Your task to perform on an android device: Open the calendar and show me this week's events? Image 0: 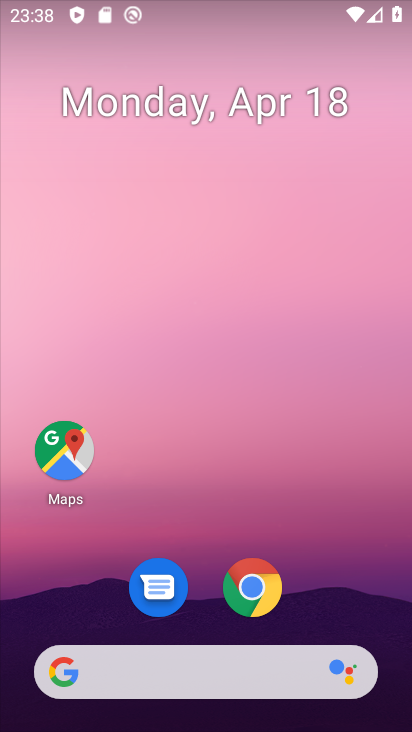
Step 0: drag from (366, 457) to (318, 126)
Your task to perform on an android device: Open the calendar and show me this week's events? Image 1: 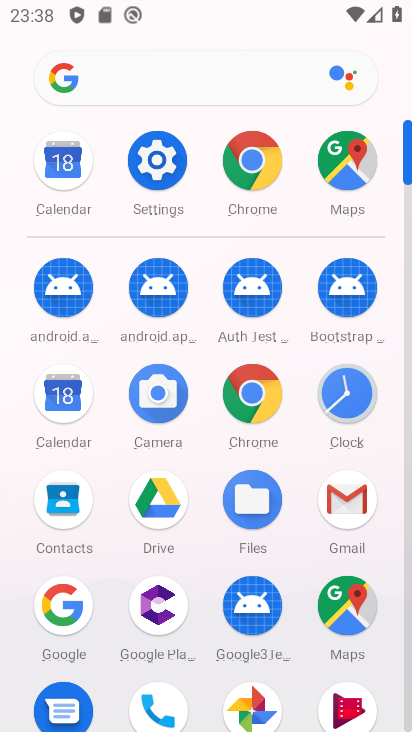
Step 1: click (59, 158)
Your task to perform on an android device: Open the calendar and show me this week's events? Image 2: 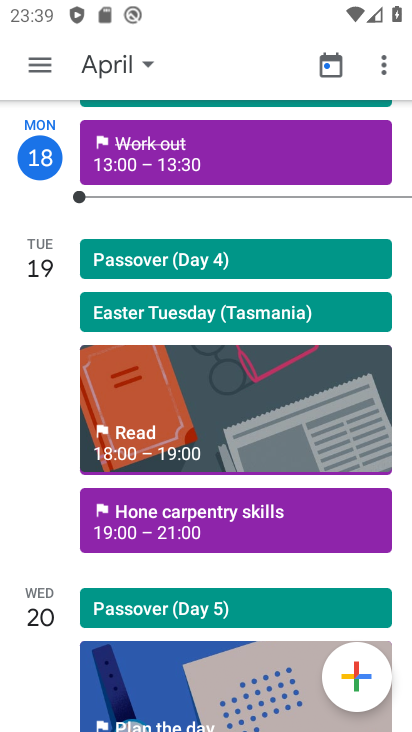
Step 2: click (104, 71)
Your task to perform on an android device: Open the calendar and show me this week's events? Image 3: 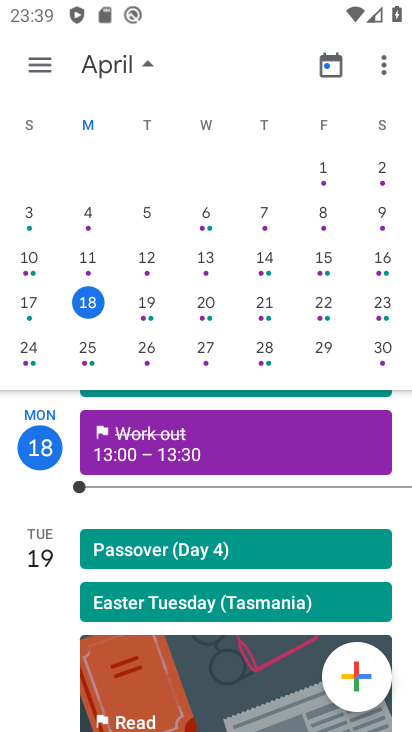
Step 3: click (146, 312)
Your task to perform on an android device: Open the calendar and show me this week's events? Image 4: 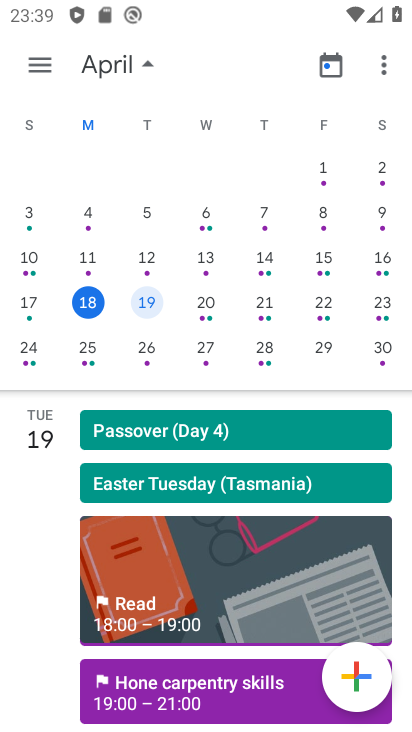
Step 4: task complete